Your task to perform on an android device: Empty the shopping cart on bestbuy. Search for "macbook pro 15 inch" on bestbuy, select the first entry, add it to the cart, then select checkout. Image 0: 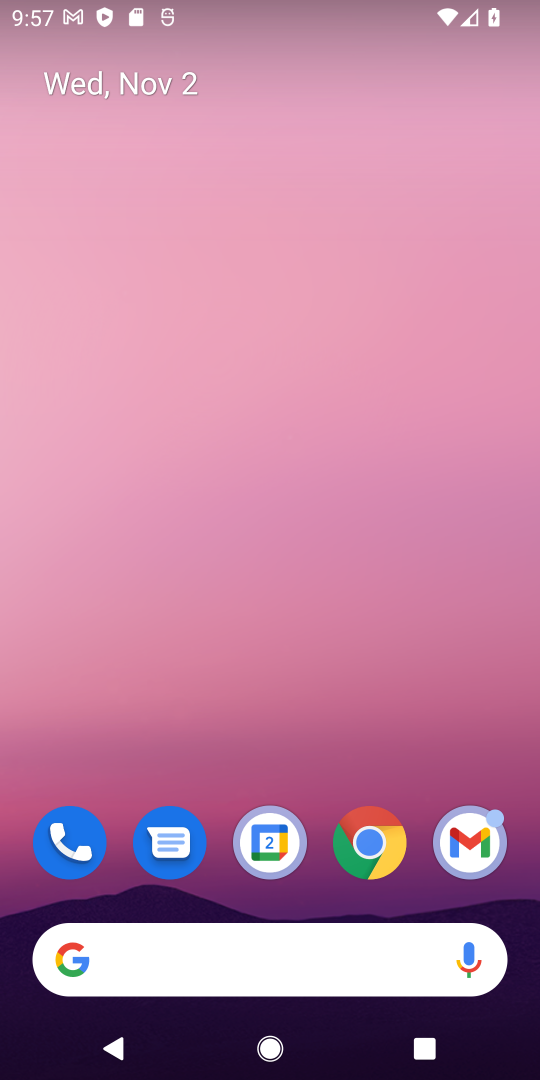
Step 0: drag from (208, 759) to (229, 400)
Your task to perform on an android device: Empty the shopping cart on bestbuy. Search for "macbook pro 15 inch" on bestbuy, select the first entry, add it to the cart, then select checkout. Image 1: 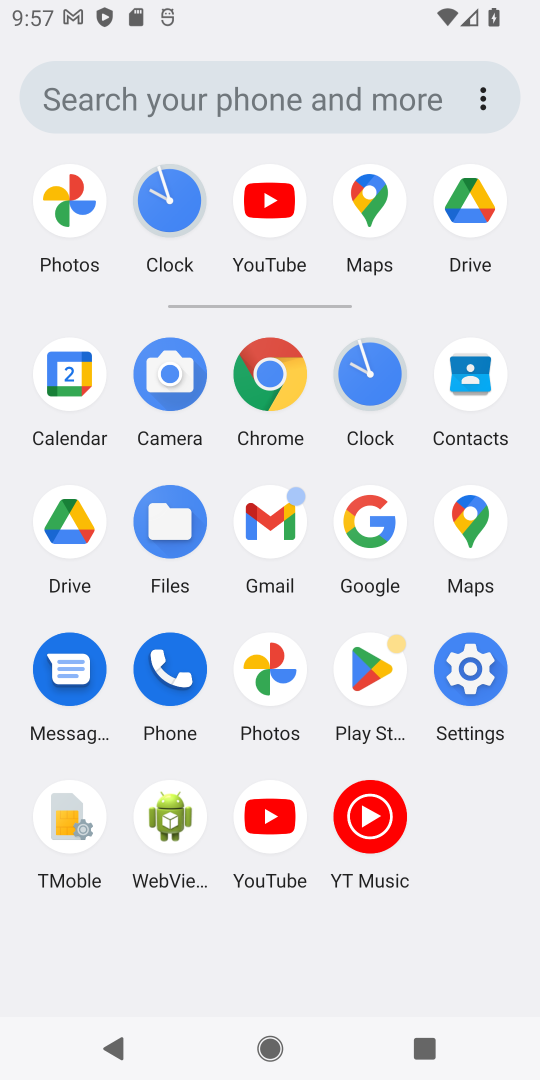
Step 1: click (351, 527)
Your task to perform on an android device: Empty the shopping cart on bestbuy. Search for "macbook pro 15 inch" on bestbuy, select the first entry, add it to the cart, then select checkout. Image 2: 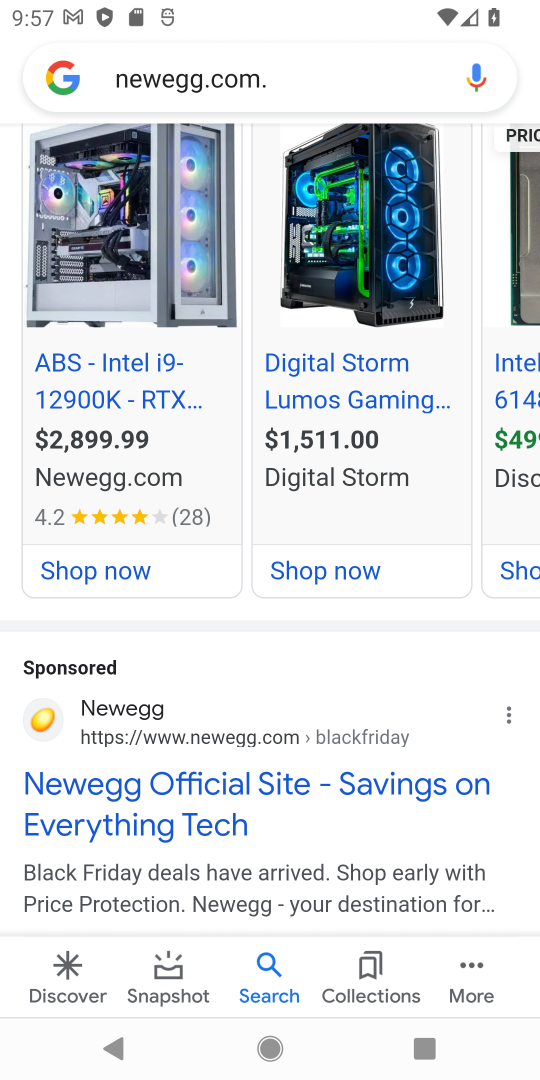
Step 2: click (309, 86)
Your task to perform on an android device: Empty the shopping cart on bestbuy. Search for "macbook pro 15 inch" on bestbuy, select the first entry, add it to the cart, then select checkout. Image 3: 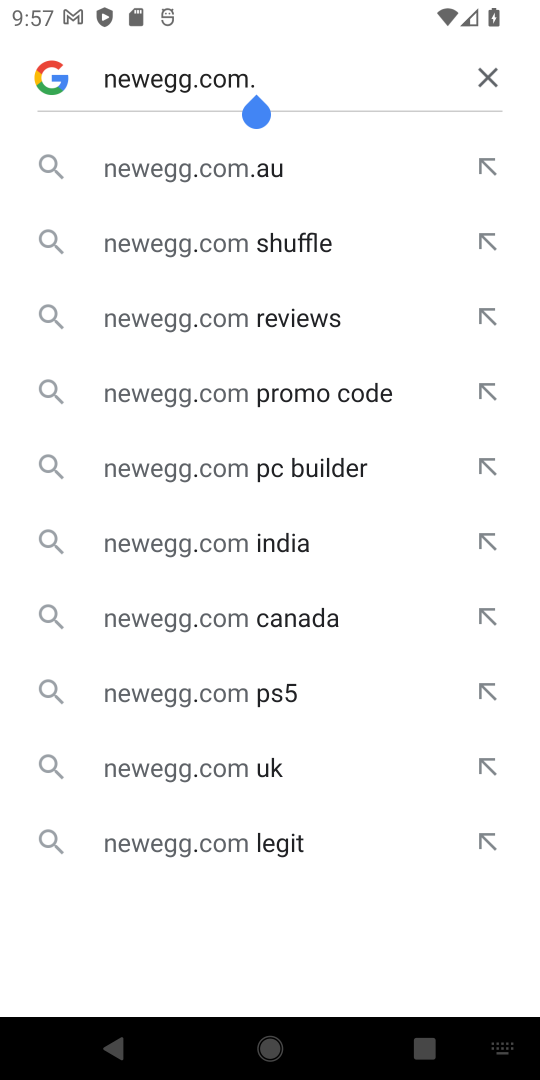
Step 3: click (489, 69)
Your task to perform on an android device: Empty the shopping cart on bestbuy. Search for "macbook pro 15 inch" on bestbuy, select the first entry, add it to the cart, then select checkout. Image 4: 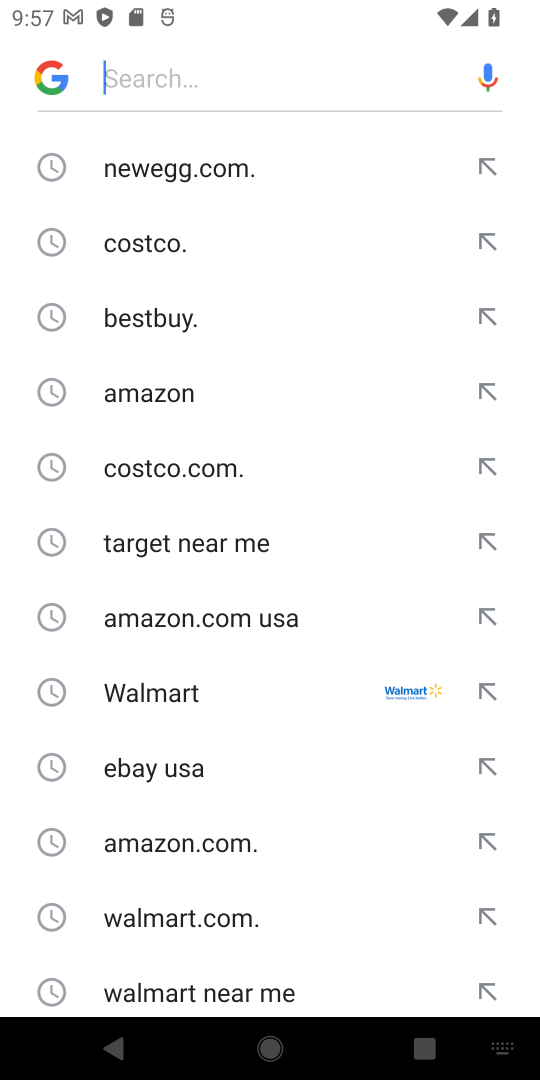
Step 4: click (128, 321)
Your task to perform on an android device: Empty the shopping cart on bestbuy. Search for "macbook pro 15 inch" on bestbuy, select the first entry, add it to the cart, then select checkout. Image 5: 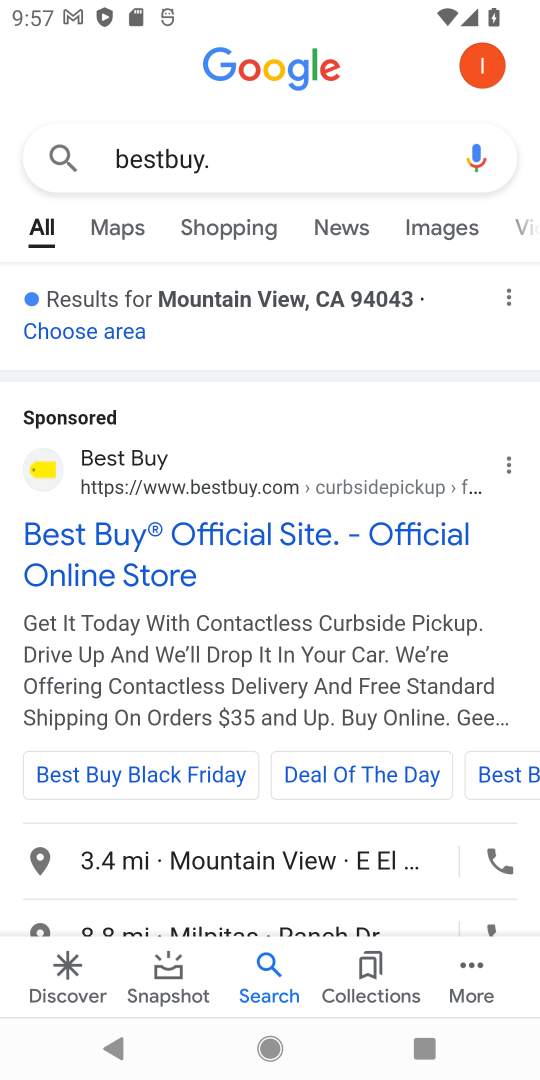
Step 5: click (44, 463)
Your task to perform on an android device: Empty the shopping cart on bestbuy. Search for "macbook pro 15 inch" on bestbuy, select the first entry, add it to the cart, then select checkout. Image 6: 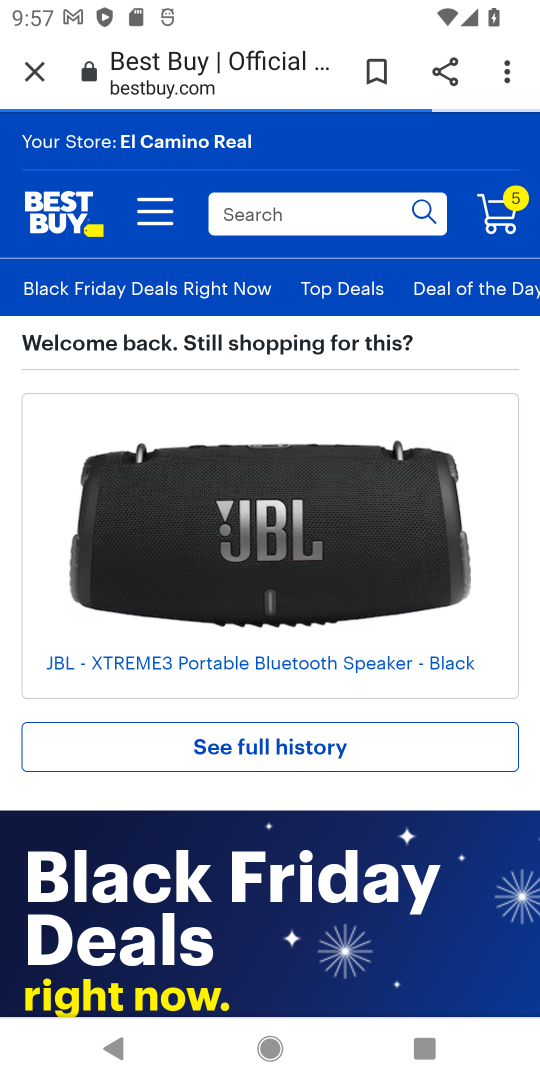
Step 6: click (349, 198)
Your task to perform on an android device: Empty the shopping cart on bestbuy. Search for "macbook pro 15 inch" on bestbuy, select the first entry, add it to the cart, then select checkout. Image 7: 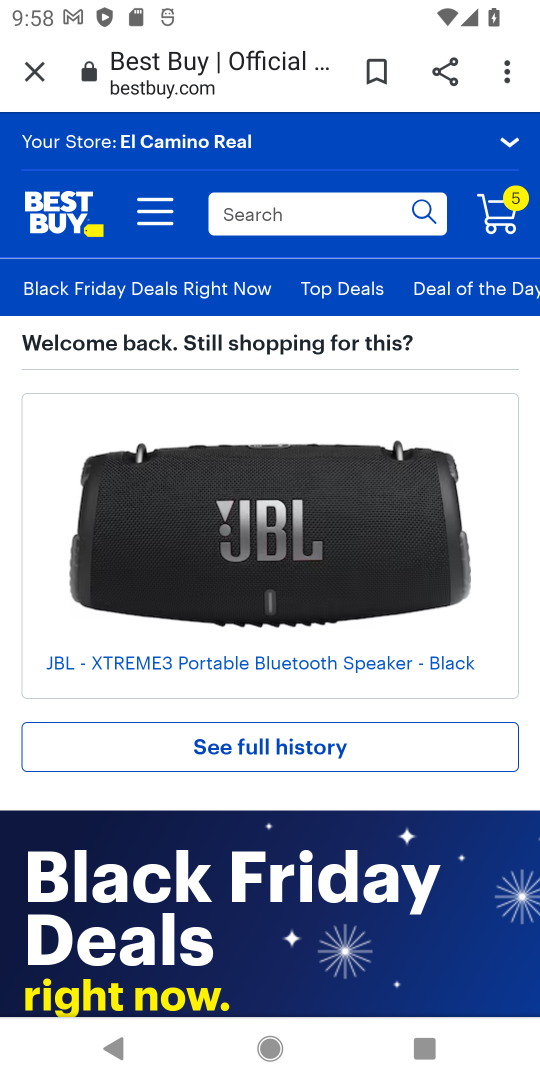
Step 7: click (350, 200)
Your task to perform on an android device: Empty the shopping cart on bestbuy. Search for "macbook pro 15 inch" on bestbuy, select the first entry, add it to the cart, then select checkout. Image 8: 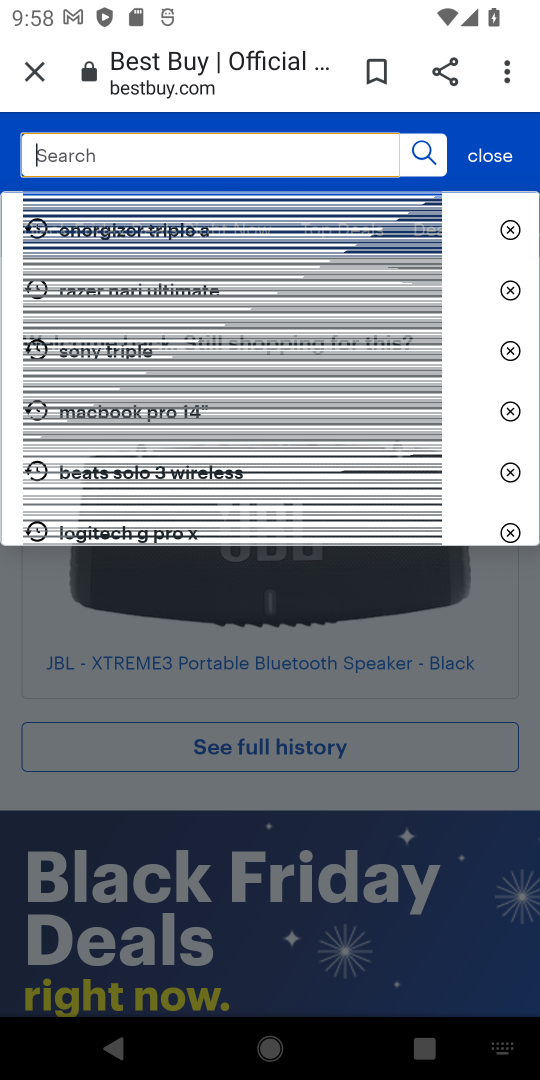
Step 8: type "macbook pro 15 inch "
Your task to perform on an android device: Empty the shopping cart on bestbuy. Search for "macbook pro 15 inch" on bestbuy, select the first entry, add it to the cart, then select checkout. Image 9: 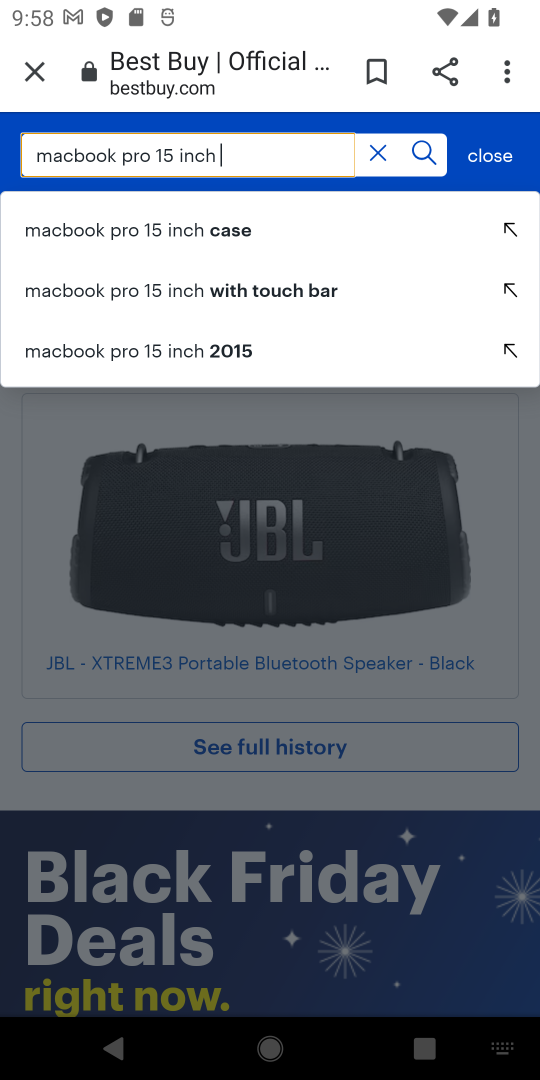
Step 9: click (183, 238)
Your task to perform on an android device: Empty the shopping cart on bestbuy. Search for "macbook pro 15 inch" on bestbuy, select the first entry, add it to the cart, then select checkout. Image 10: 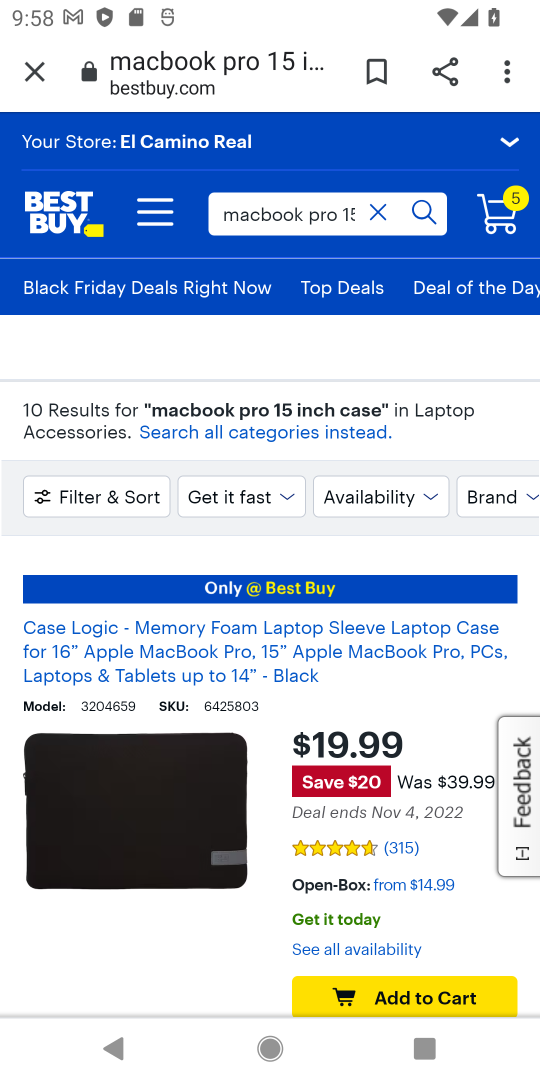
Step 10: drag from (216, 719) to (250, 228)
Your task to perform on an android device: Empty the shopping cart on bestbuy. Search for "macbook pro 15 inch" on bestbuy, select the first entry, add it to the cart, then select checkout. Image 11: 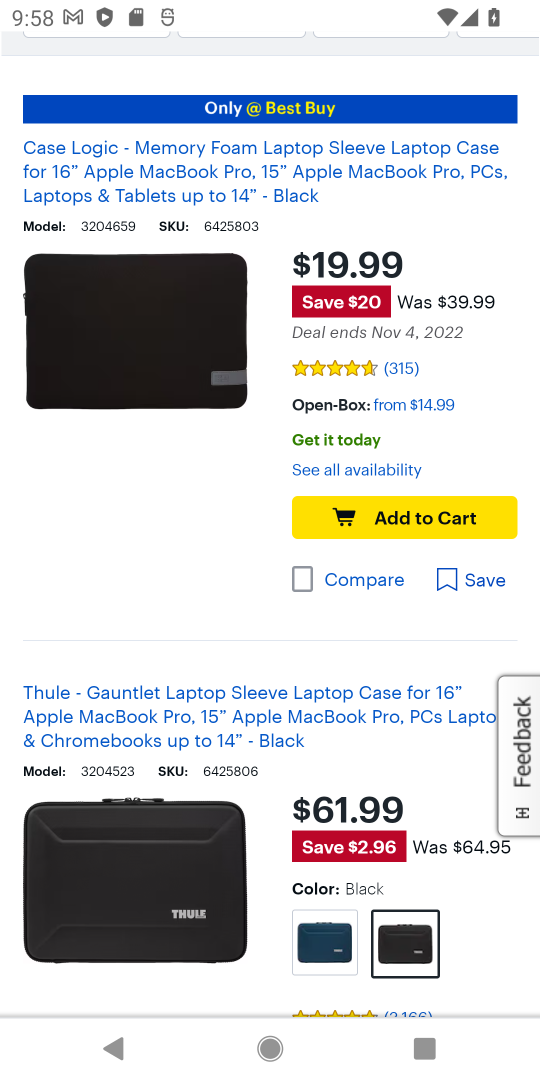
Step 11: press back button
Your task to perform on an android device: Empty the shopping cart on bestbuy. Search for "macbook pro 15 inch" on bestbuy, select the first entry, add it to the cart, then select checkout. Image 12: 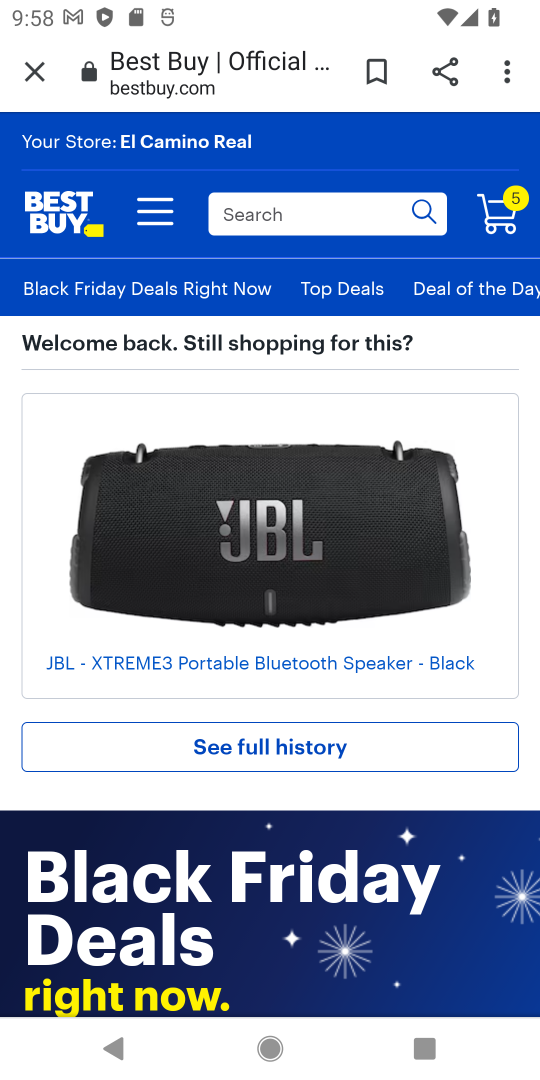
Step 12: click (244, 190)
Your task to perform on an android device: Empty the shopping cart on bestbuy. Search for "macbook pro 15 inch" on bestbuy, select the first entry, add it to the cart, then select checkout. Image 13: 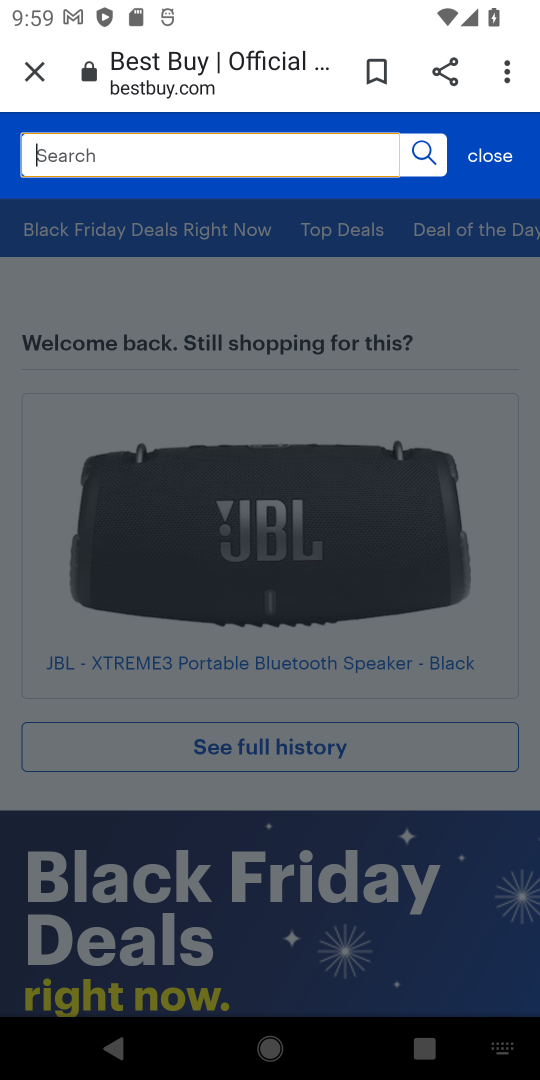
Step 13: click (319, 136)
Your task to perform on an android device: Empty the shopping cart on bestbuy. Search for "macbook pro 15 inch" on bestbuy, select the first entry, add it to the cart, then select checkout. Image 14: 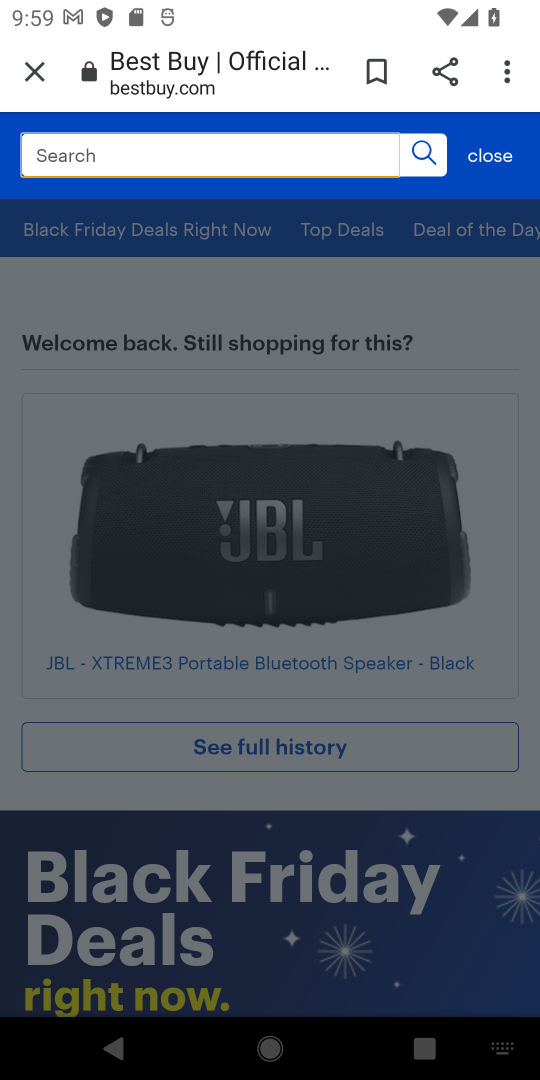
Step 14: type "macbook pro 15 inch "
Your task to perform on an android device: Empty the shopping cart on bestbuy. Search for "macbook pro 15 inch" on bestbuy, select the first entry, add it to the cart, then select checkout. Image 15: 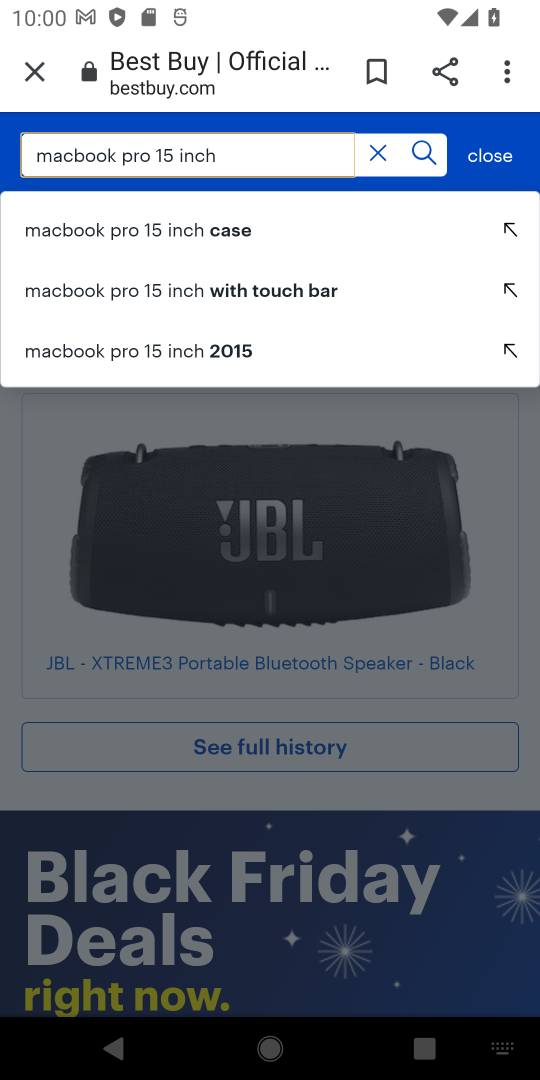
Step 15: click (172, 217)
Your task to perform on an android device: Empty the shopping cart on bestbuy. Search for "macbook pro 15 inch" on bestbuy, select the first entry, add it to the cart, then select checkout. Image 16: 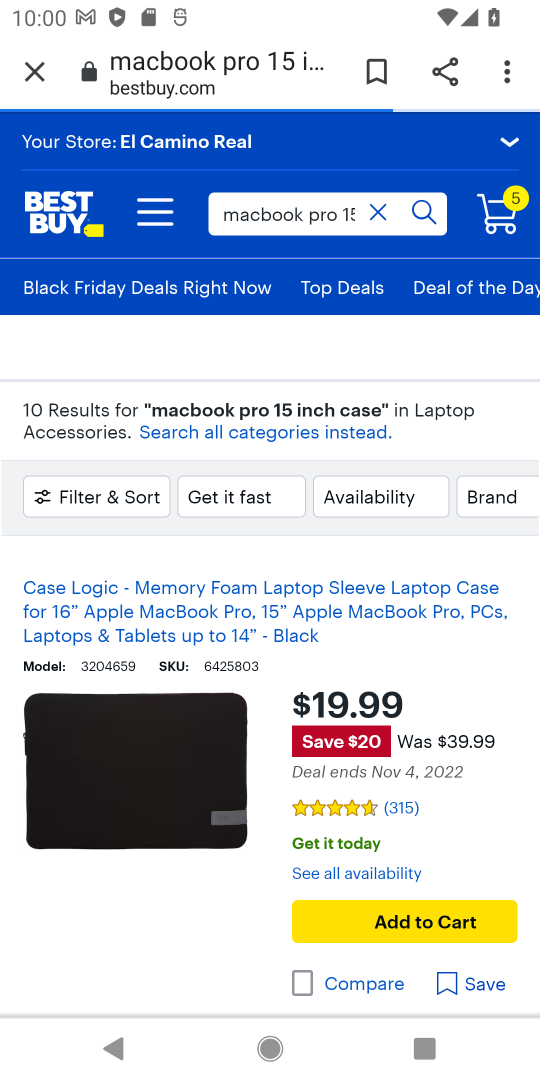
Step 16: click (383, 212)
Your task to perform on an android device: Empty the shopping cart on bestbuy. Search for "macbook pro 15 inch" on bestbuy, select the first entry, add it to the cart, then select checkout. Image 17: 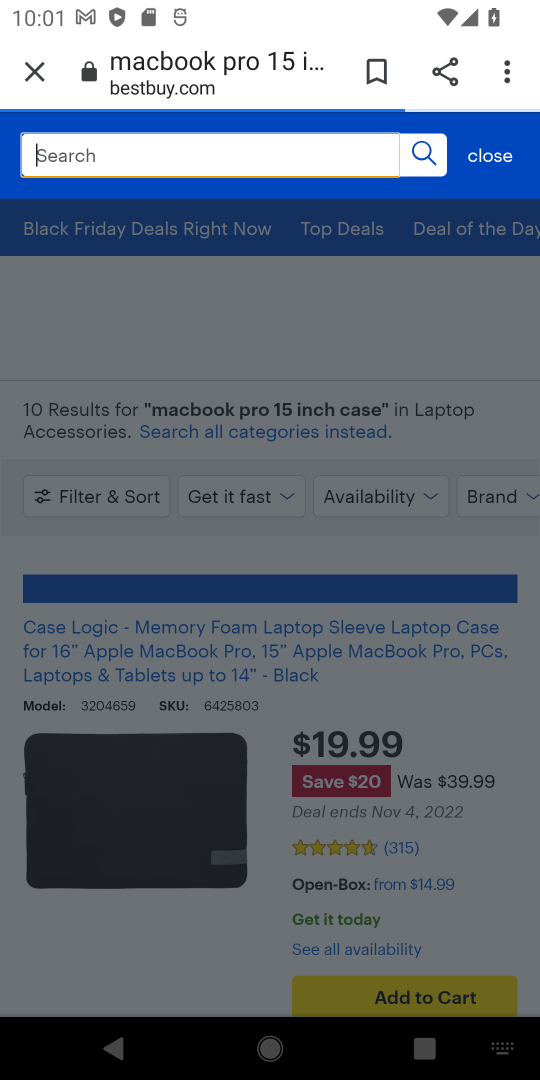
Step 17: click (245, 137)
Your task to perform on an android device: Empty the shopping cart on bestbuy. Search for "macbook pro 15 inch" on bestbuy, select the first entry, add it to the cart, then select checkout. Image 18: 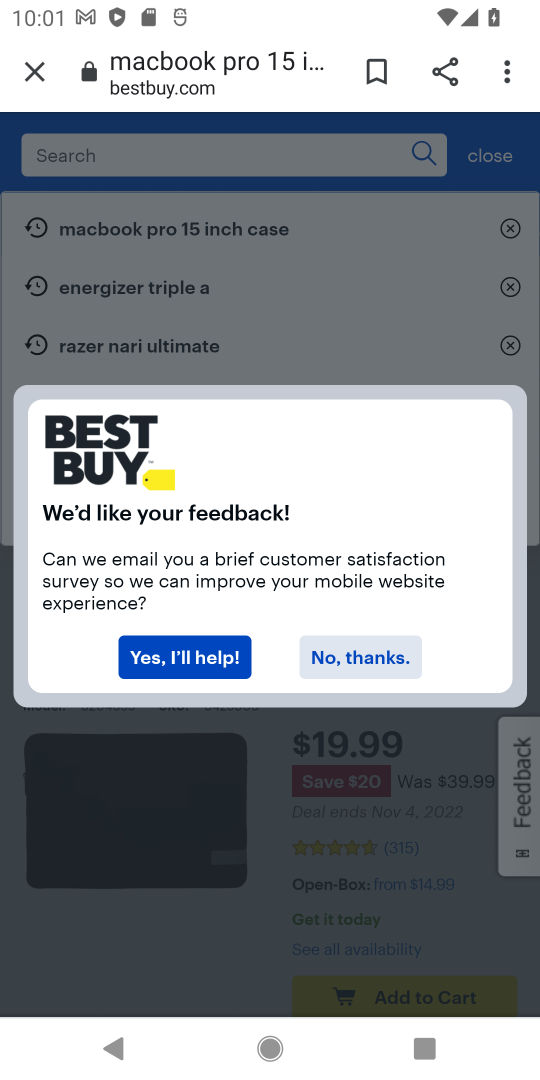
Step 18: type "macbook pro 15 inch "
Your task to perform on an android device: Empty the shopping cart on bestbuy. Search for "macbook pro 15 inch" on bestbuy, select the first entry, add it to the cart, then select checkout. Image 19: 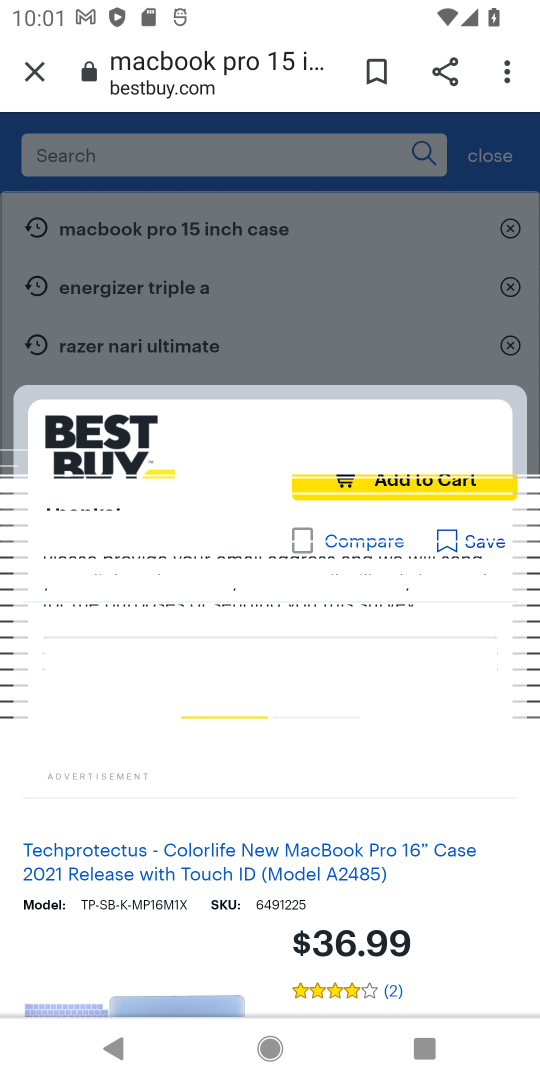
Step 19: click (317, 713)
Your task to perform on an android device: Empty the shopping cart on bestbuy. Search for "macbook pro 15 inch" on bestbuy, select the first entry, add it to the cart, then select checkout. Image 20: 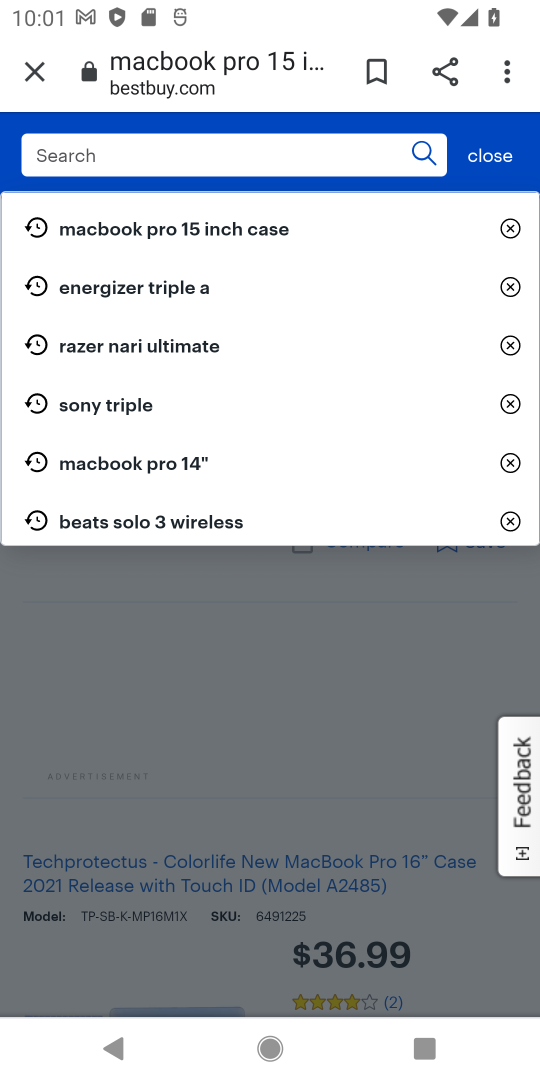
Step 20: click (190, 142)
Your task to perform on an android device: Empty the shopping cart on bestbuy. Search for "macbook pro 15 inch" on bestbuy, select the first entry, add it to the cart, then select checkout. Image 21: 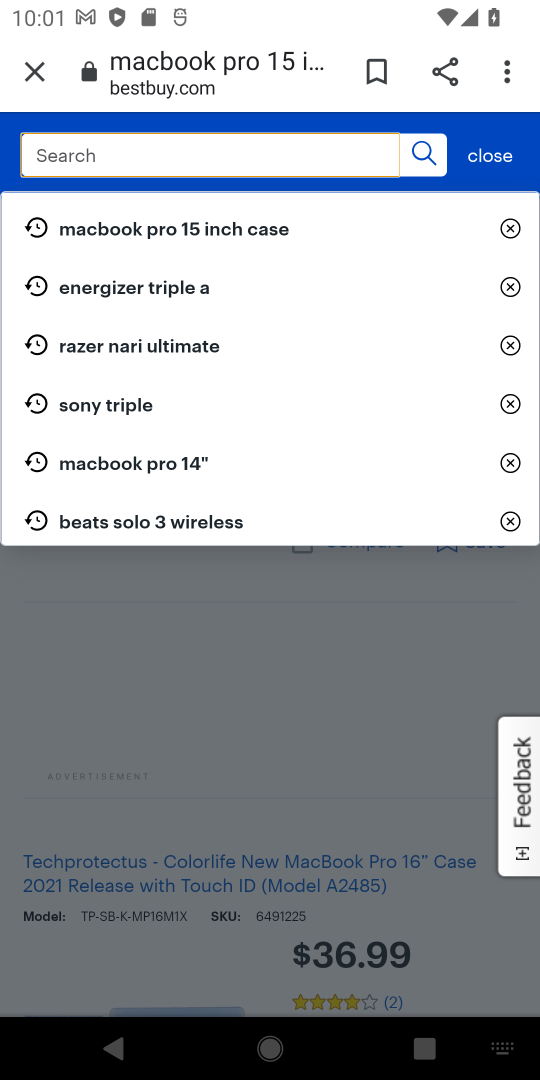
Step 21: type "macbook pro 15 inch "
Your task to perform on an android device: Empty the shopping cart on bestbuy. Search for "macbook pro 15 inch" on bestbuy, select the first entry, add it to the cart, then select checkout. Image 22: 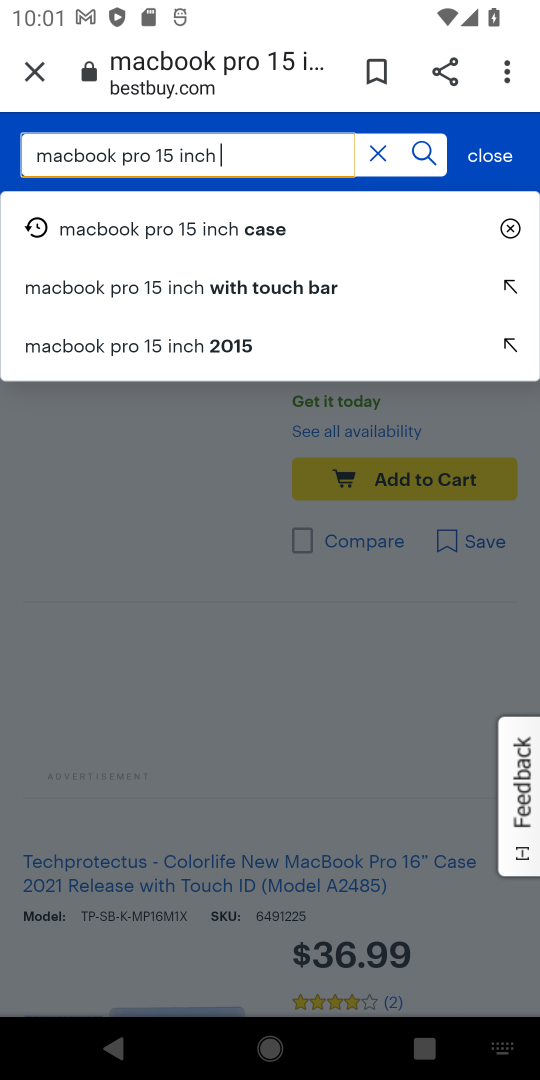
Step 22: click (169, 292)
Your task to perform on an android device: Empty the shopping cart on bestbuy. Search for "macbook pro 15 inch" on bestbuy, select the first entry, add it to the cart, then select checkout. Image 23: 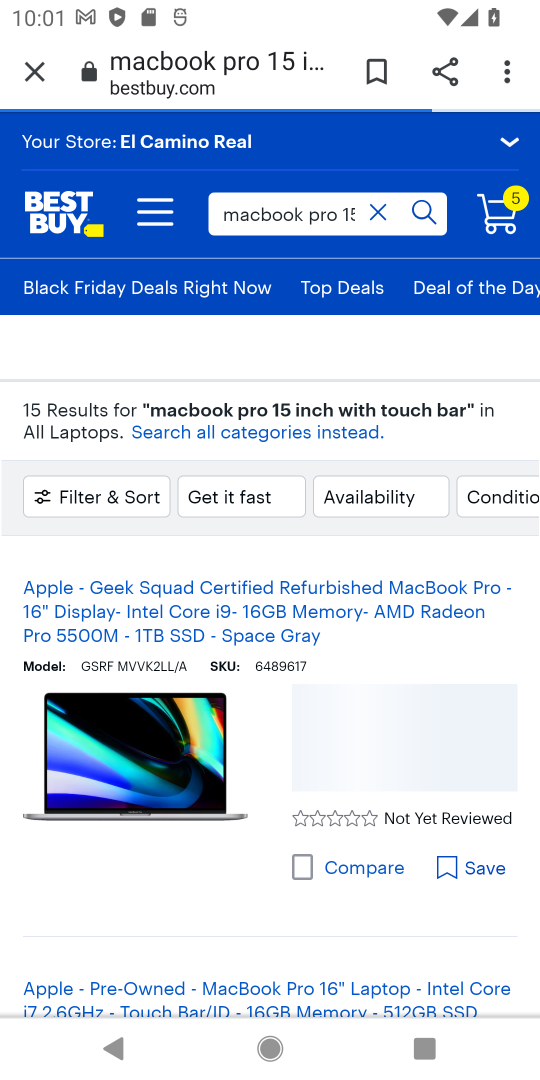
Step 23: drag from (311, 818) to (345, 460)
Your task to perform on an android device: Empty the shopping cart on bestbuy. Search for "macbook pro 15 inch" on bestbuy, select the first entry, add it to the cart, then select checkout. Image 24: 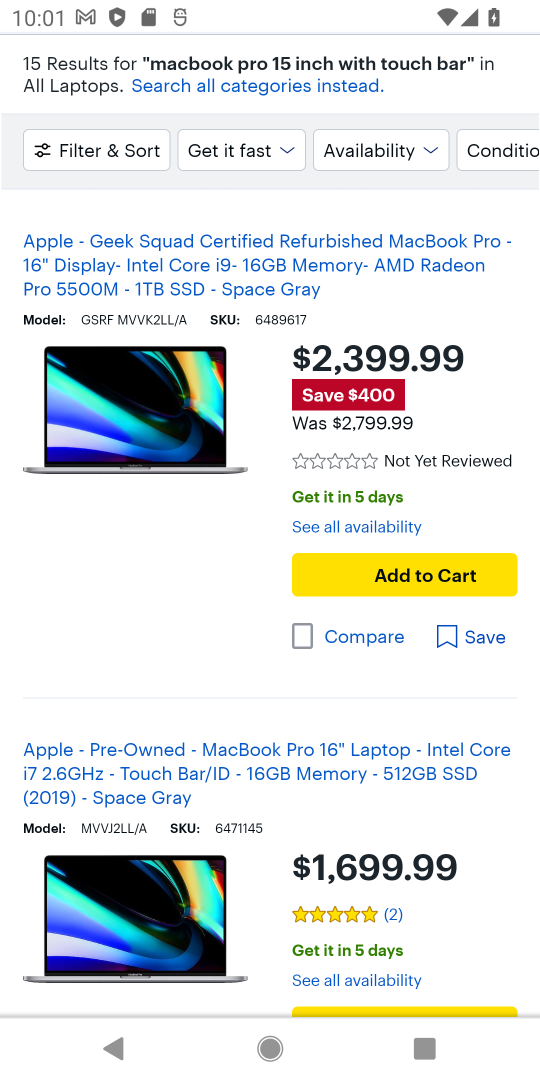
Step 24: click (365, 505)
Your task to perform on an android device: Empty the shopping cart on bestbuy. Search for "macbook pro 15 inch" on bestbuy, select the first entry, add it to the cart, then select checkout. Image 25: 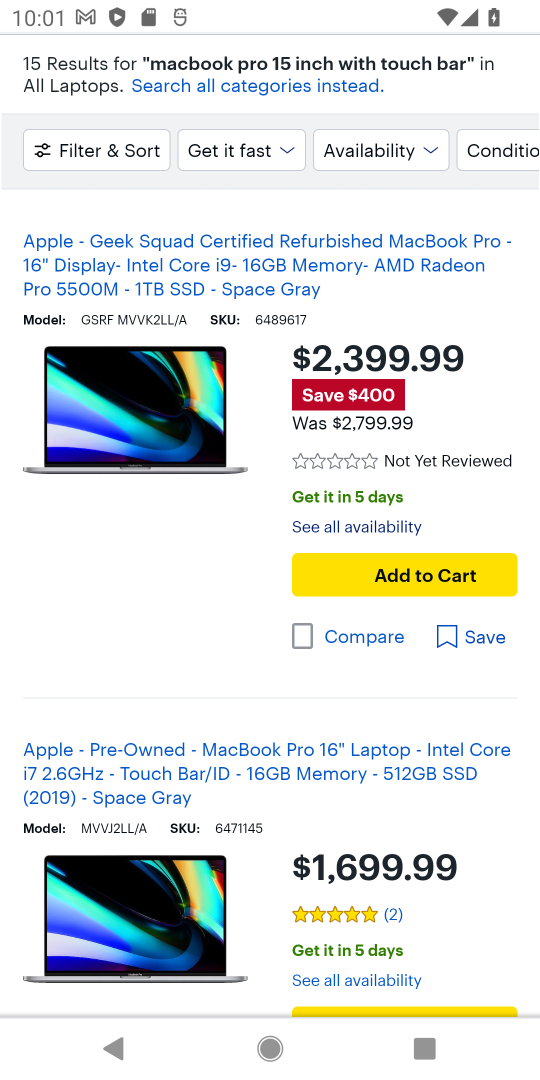
Step 25: click (363, 571)
Your task to perform on an android device: Empty the shopping cart on bestbuy. Search for "macbook pro 15 inch" on bestbuy, select the first entry, add it to the cart, then select checkout. Image 26: 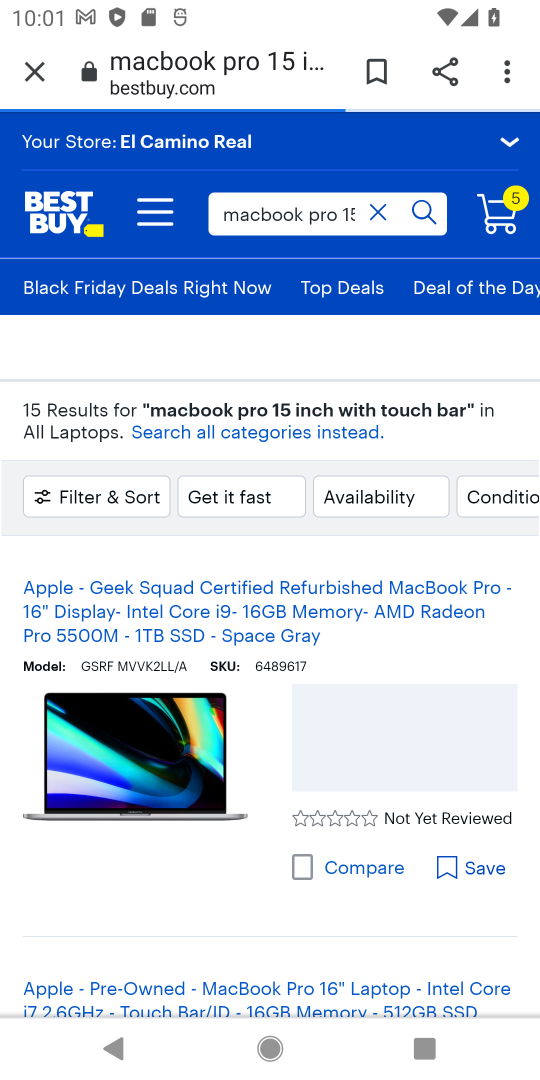
Step 26: task complete